Your task to perform on an android device: Open the calendar and show me this week's events? Image 0: 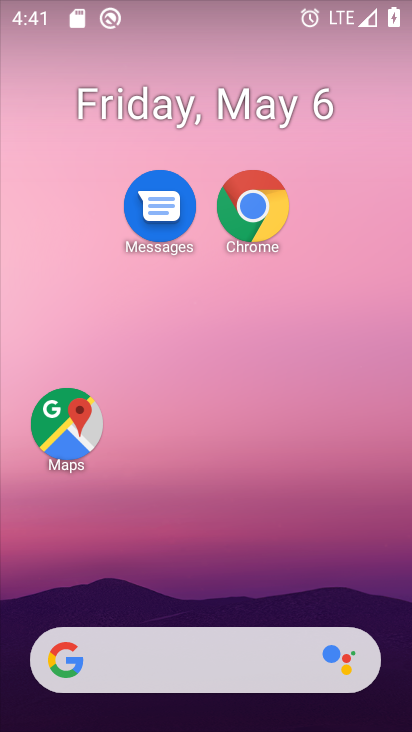
Step 0: drag from (204, 625) to (184, 280)
Your task to perform on an android device: Open the calendar and show me this week's events? Image 1: 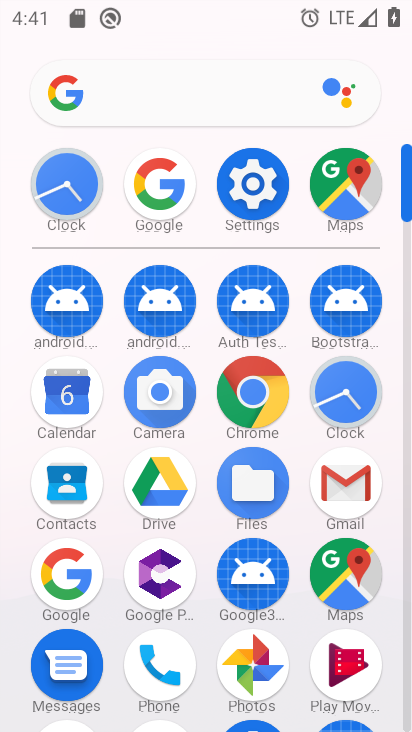
Step 1: click (78, 391)
Your task to perform on an android device: Open the calendar and show me this week's events? Image 2: 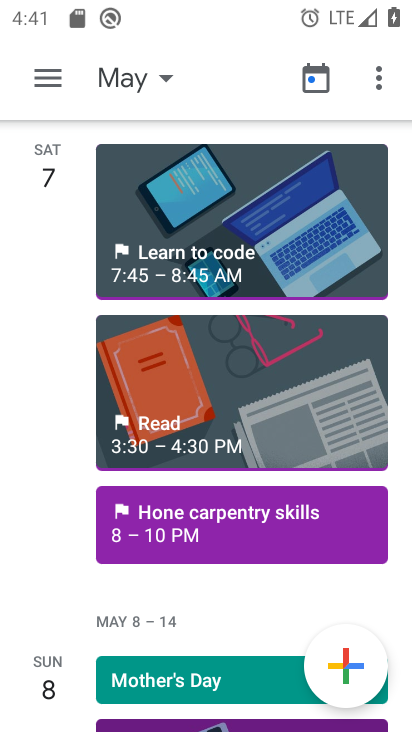
Step 2: task complete